Your task to perform on an android device: turn on sleep mode Image 0: 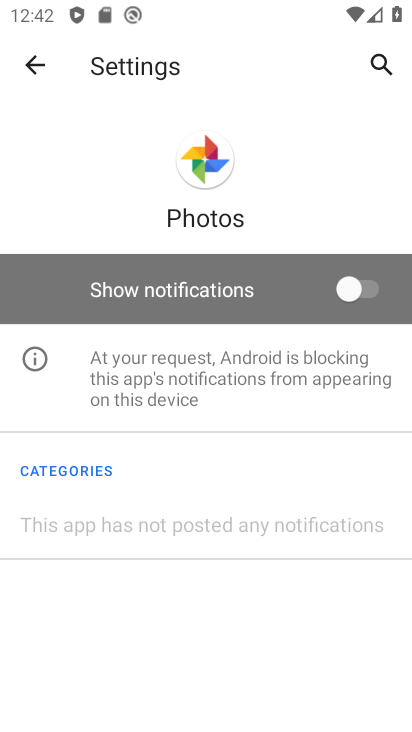
Step 0: press home button
Your task to perform on an android device: turn on sleep mode Image 1: 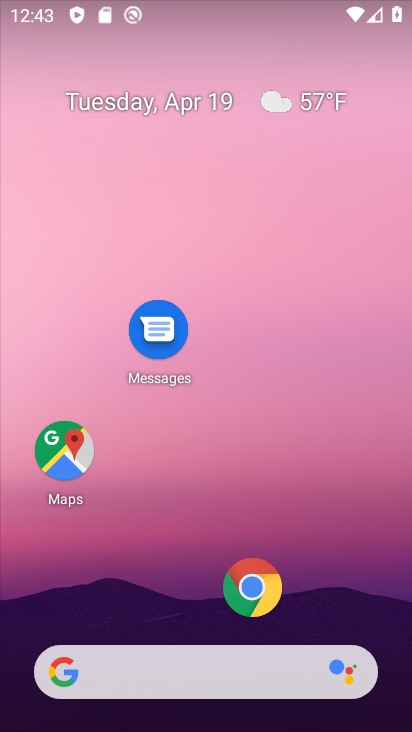
Step 1: drag from (148, 463) to (130, 94)
Your task to perform on an android device: turn on sleep mode Image 2: 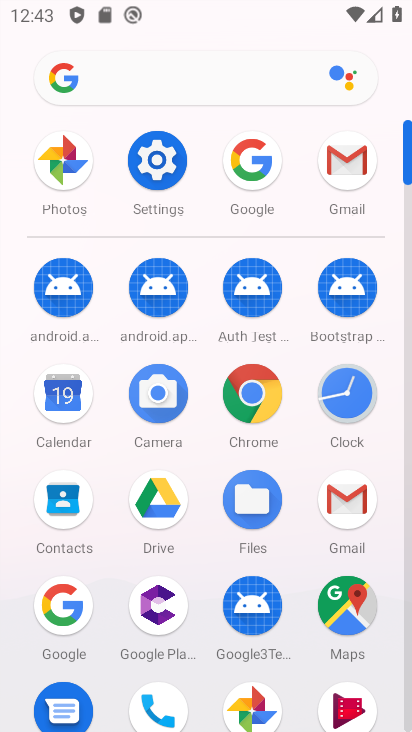
Step 2: click (149, 151)
Your task to perform on an android device: turn on sleep mode Image 3: 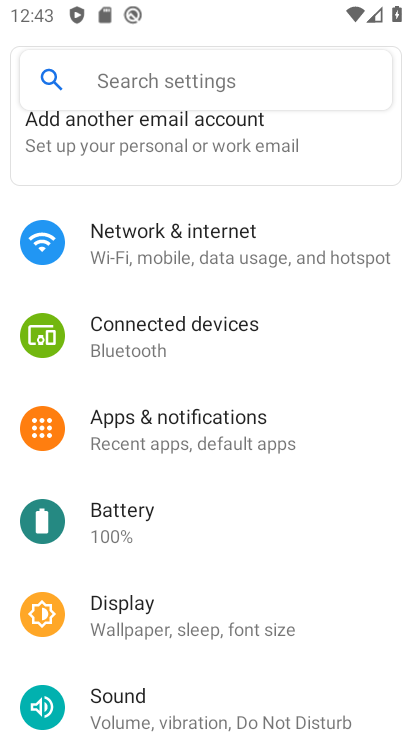
Step 3: click (178, 625)
Your task to perform on an android device: turn on sleep mode Image 4: 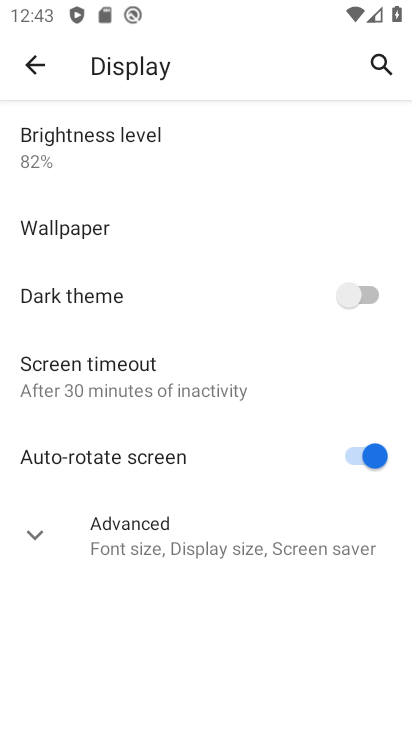
Step 4: click (93, 344)
Your task to perform on an android device: turn on sleep mode Image 5: 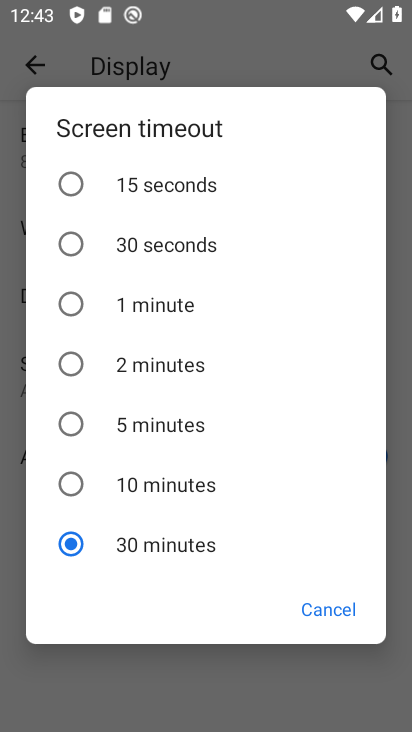
Step 5: task complete